Your task to perform on an android device: check data usage Image 0: 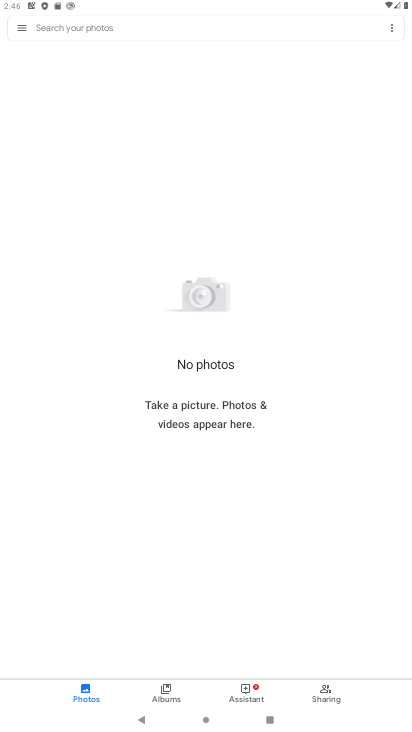
Step 0: press back button
Your task to perform on an android device: check data usage Image 1: 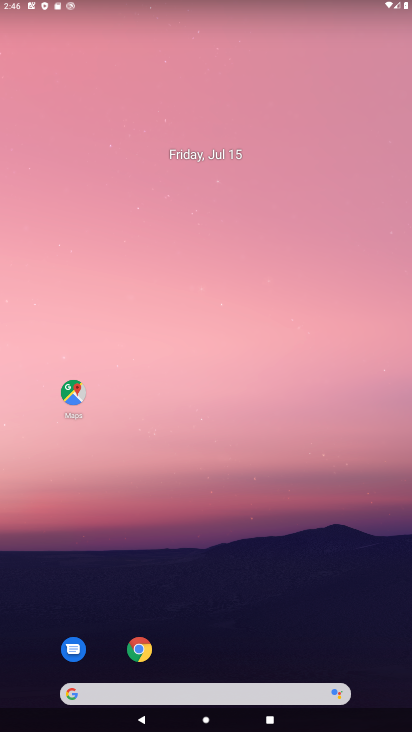
Step 1: drag from (248, 598) to (189, 121)
Your task to perform on an android device: check data usage Image 2: 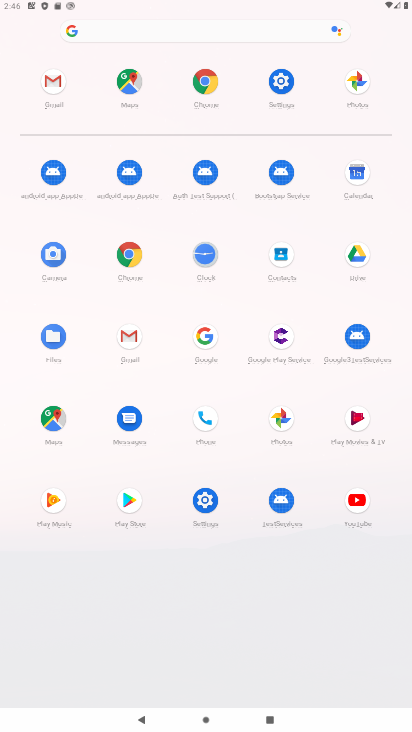
Step 2: click (210, 495)
Your task to perform on an android device: check data usage Image 3: 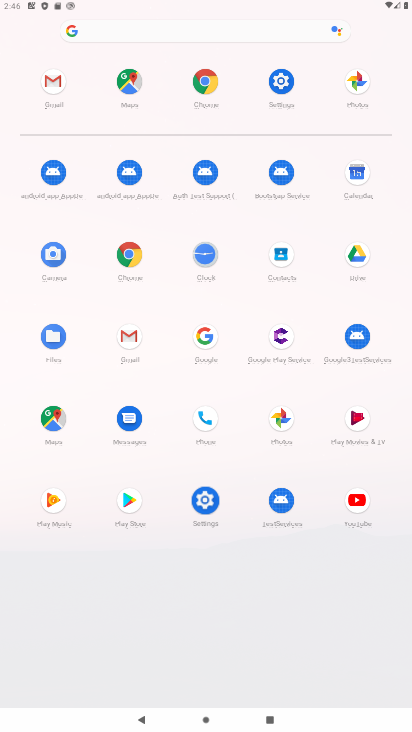
Step 3: click (210, 502)
Your task to perform on an android device: check data usage Image 4: 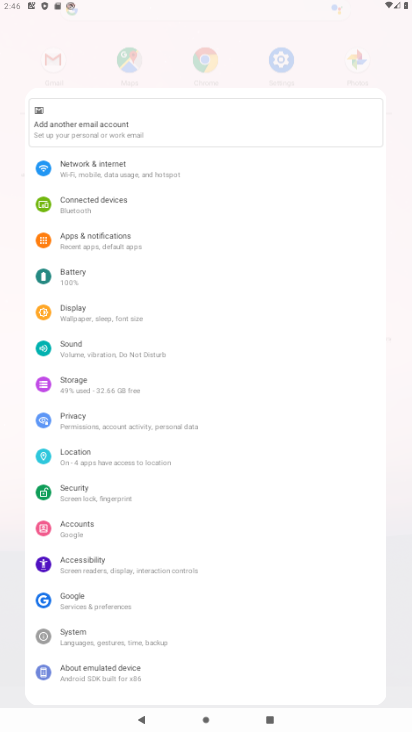
Step 4: click (212, 505)
Your task to perform on an android device: check data usage Image 5: 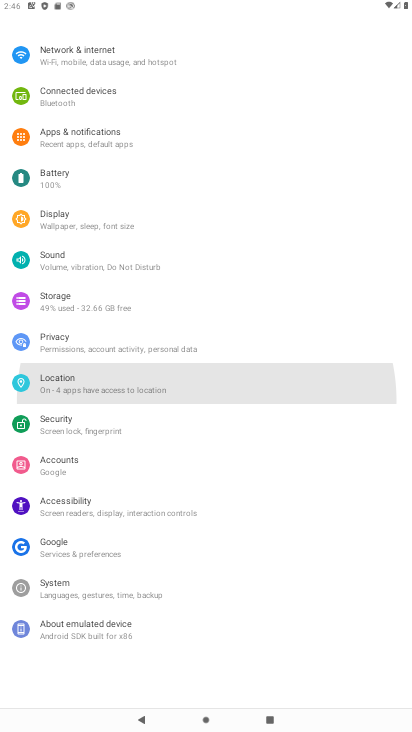
Step 5: click (213, 506)
Your task to perform on an android device: check data usage Image 6: 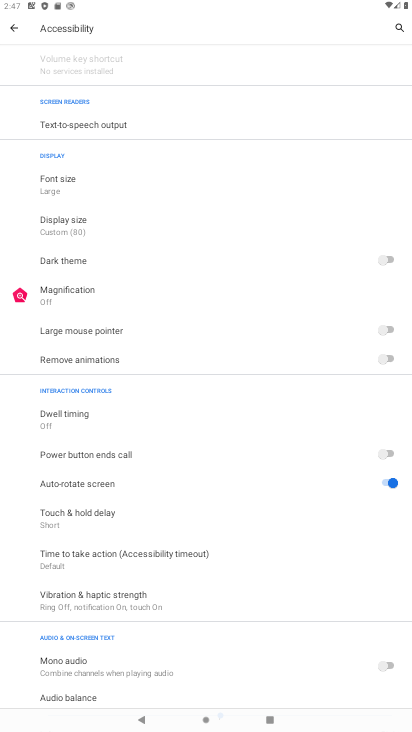
Step 6: click (8, 34)
Your task to perform on an android device: check data usage Image 7: 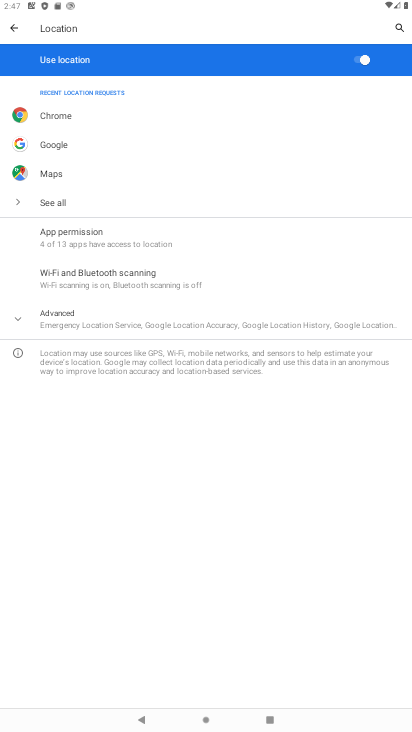
Step 7: click (17, 28)
Your task to perform on an android device: check data usage Image 8: 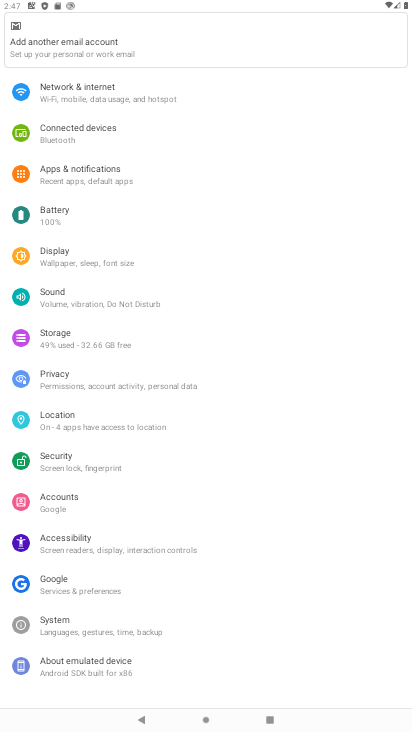
Step 8: click (85, 94)
Your task to perform on an android device: check data usage Image 9: 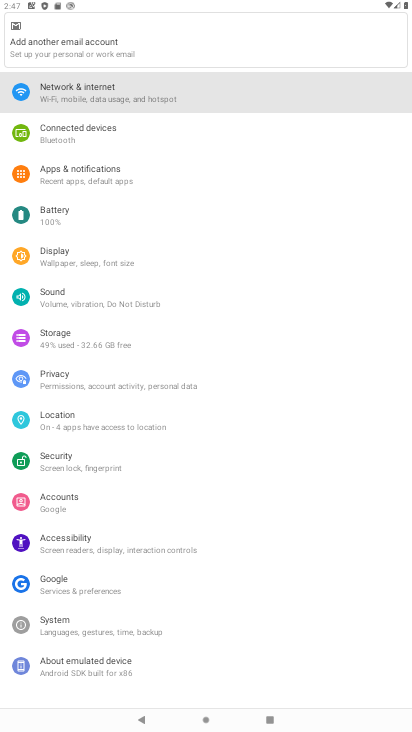
Step 9: click (85, 94)
Your task to perform on an android device: check data usage Image 10: 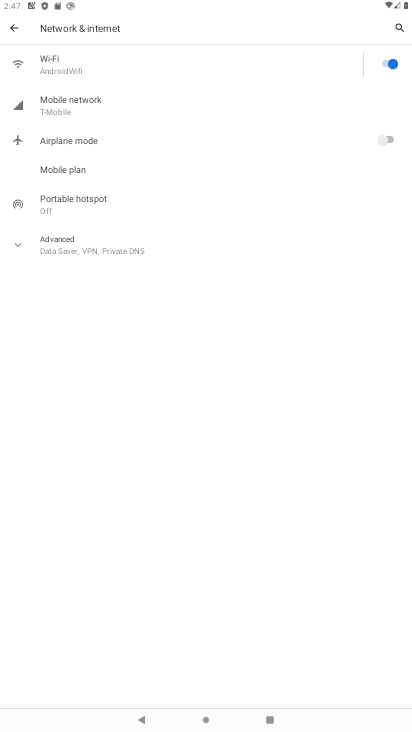
Step 10: task complete